Your task to perform on an android device: allow notifications from all sites in the chrome app Image 0: 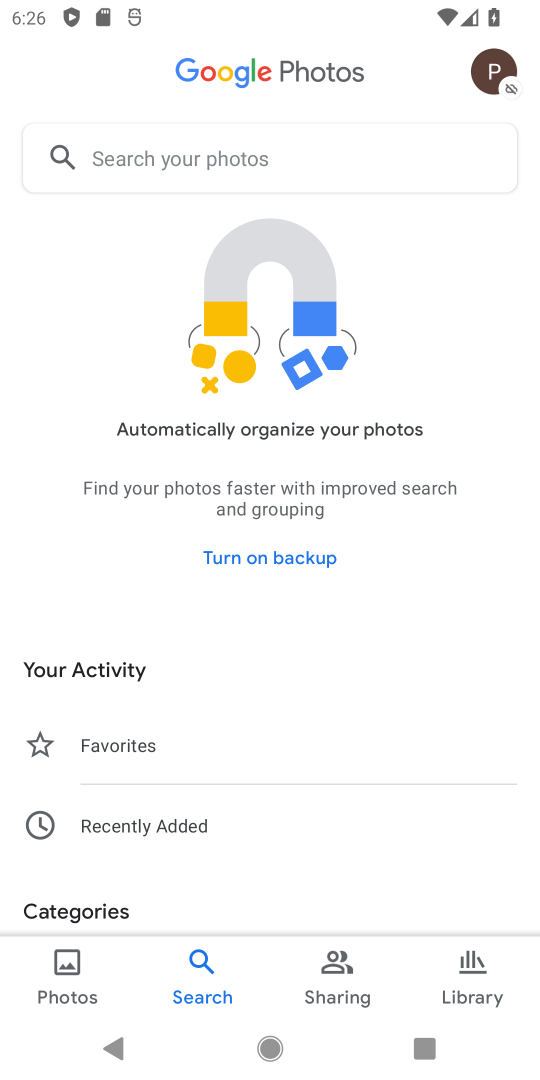
Step 0: press home button
Your task to perform on an android device: allow notifications from all sites in the chrome app Image 1: 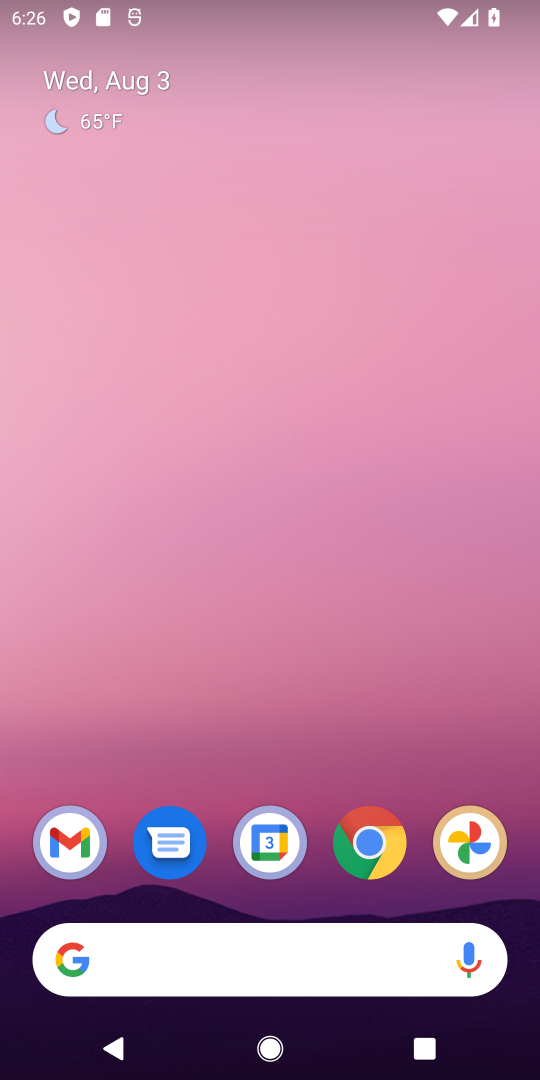
Step 1: click (377, 839)
Your task to perform on an android device: allow notifications from all sites in the chrome app Image 2: 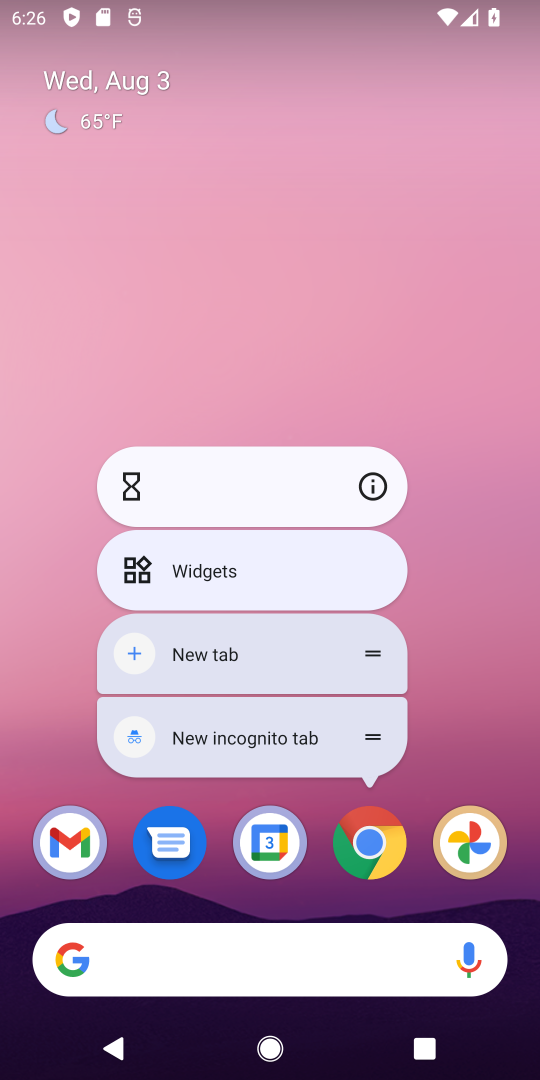
Step 2: click (377, 839)
Your task to perform on an android device: allow notifications from all sites in the chrome app Image 3: 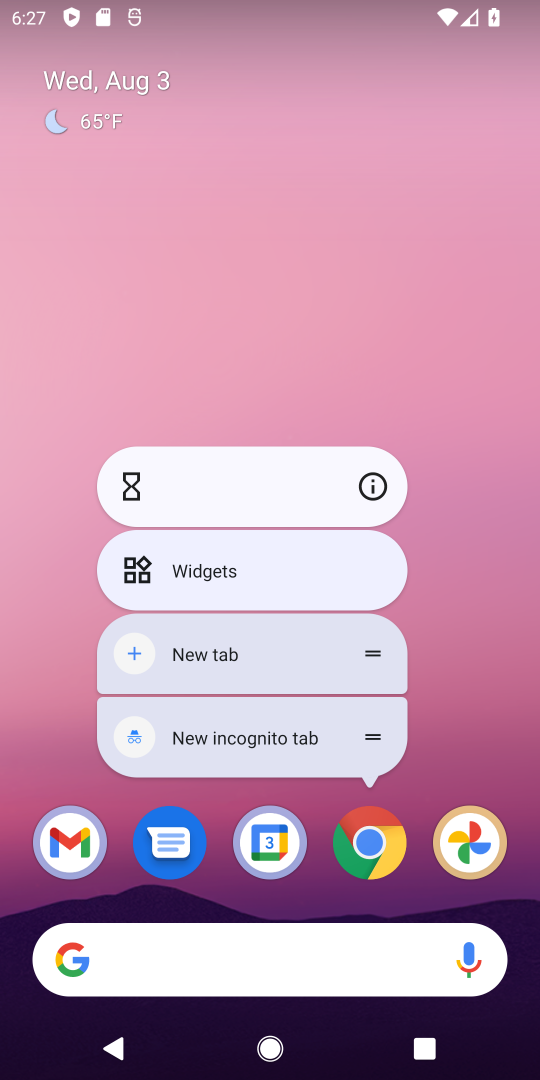
Step 3: click (353, 848)
Your task to perform on an android device: allow notifications from all sites in the chrome app Image 4: 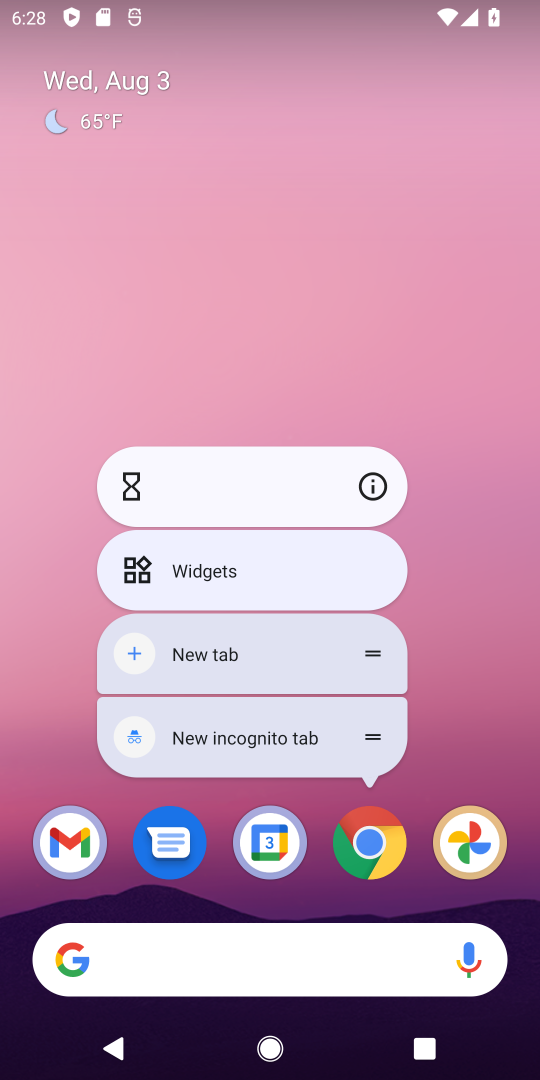
Step 4: click (389, 864)
Your task to perform on an android device: allow notifications from all sites in the chrome app Image 5: 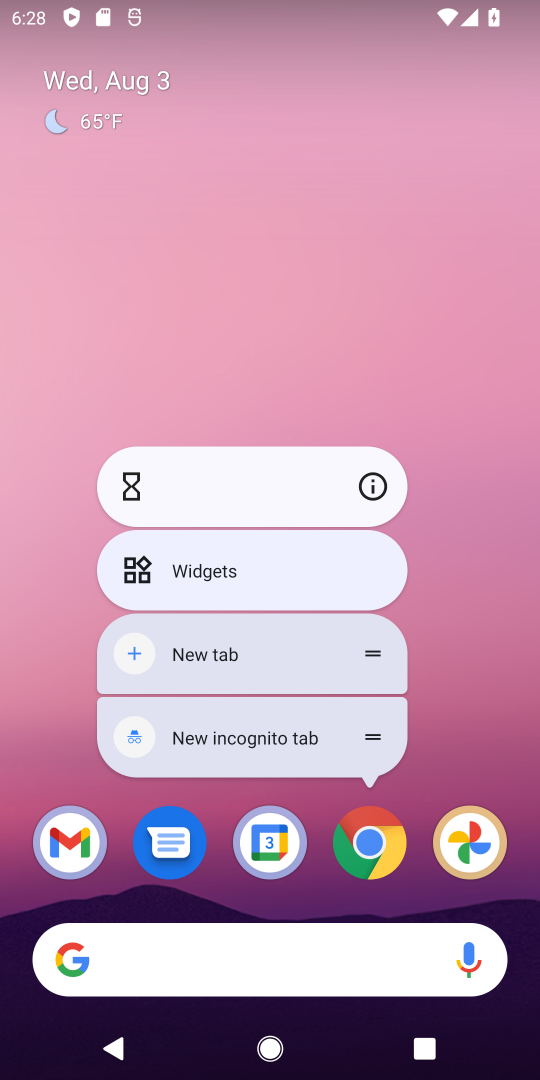
Step 5: click (389, 864)
Your task to perform on an android device: allow notifications from all sites in the chrome app Image 6: 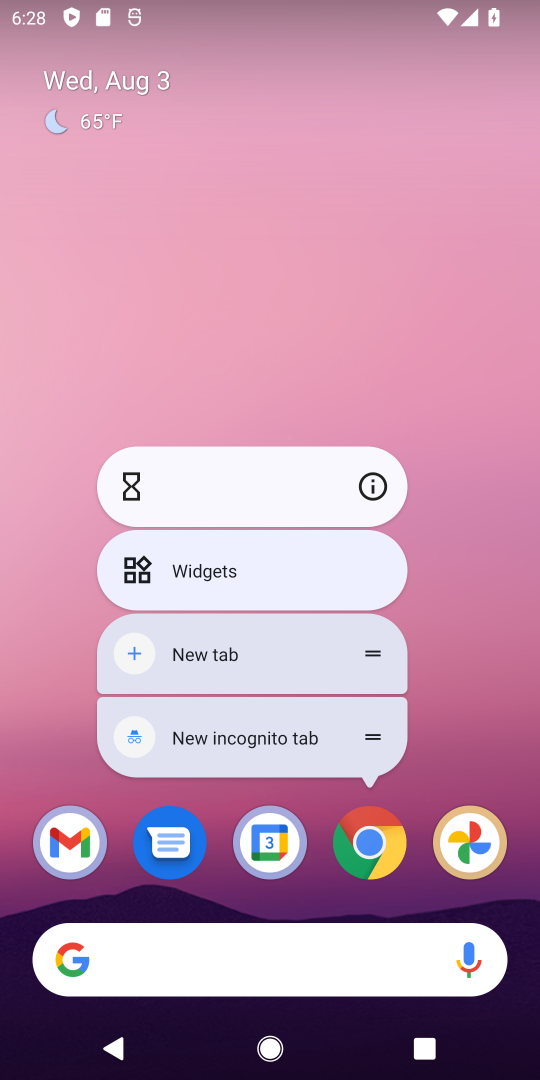
Step 6: click (357, 830)
Your task to perform on an android device: allow notifications from all sites in the chrome app Image 7: 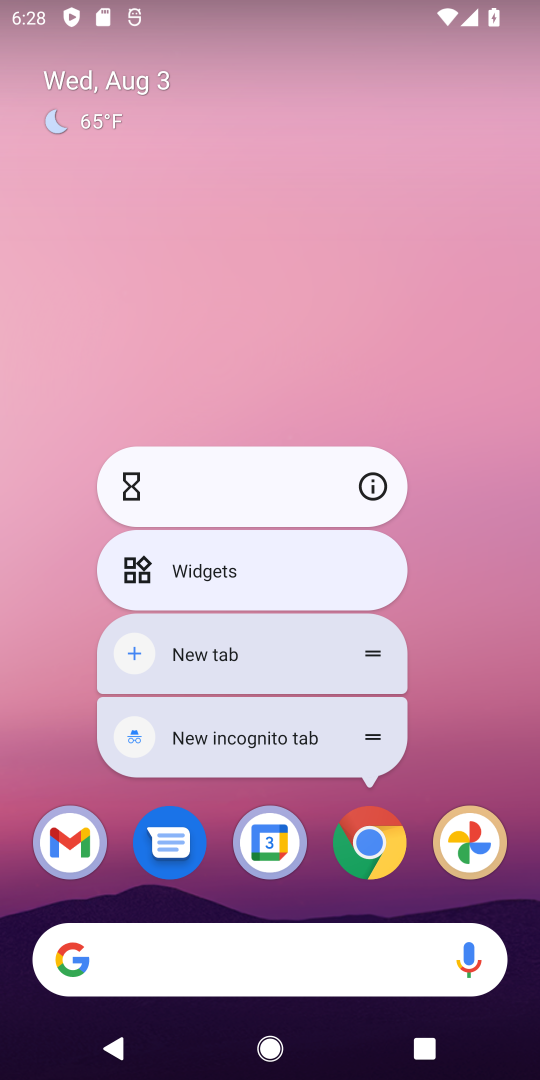
Step 7: click (376, 833)
Your task to perform on an android device: allow notifications from all sites in the chrome app Image 8: 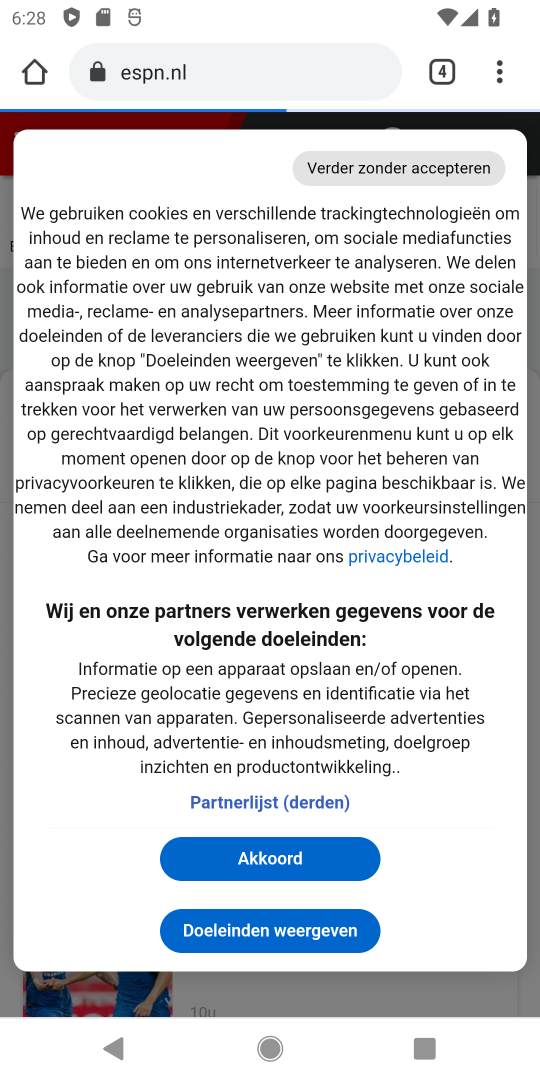
Step 8: click (502, 70)
Your task to perform on an android device: allow notifications from all sites in the chrome app Image 9: 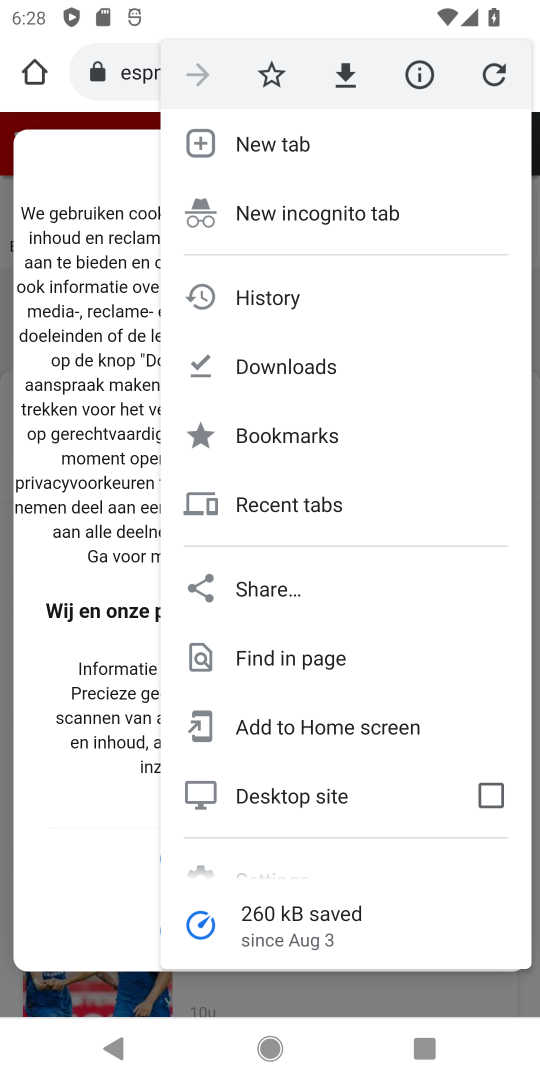
Step 9: drag from (346, 841) to (403, 38)
Your task to perform on an android device: allow notifications from all sites in the chrome app Image 10: 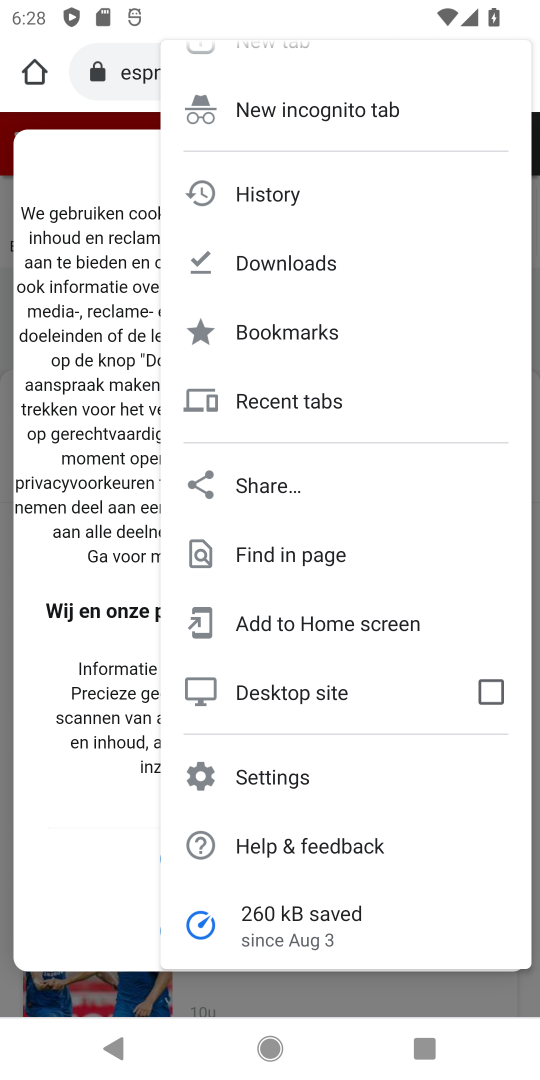
Step 10: click (317, 763)
Your task to perform on an android device: allow notifications from all sites in the chrome app Image 11: 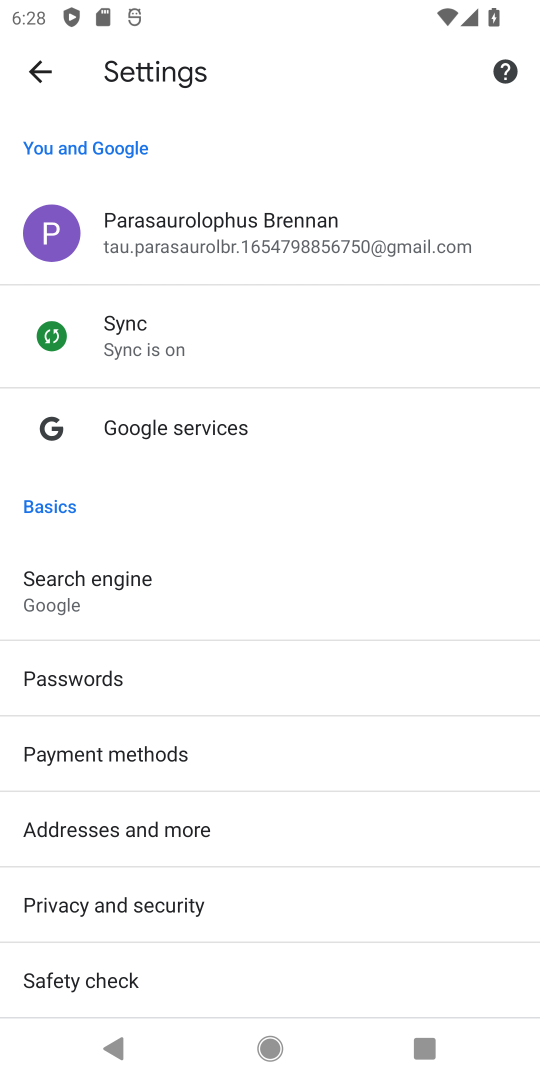
Step 11: drag from (216, 752) to (302, 109)
Your task to perform on an android device: allow notifications from all sites in the chrome app Image 12: 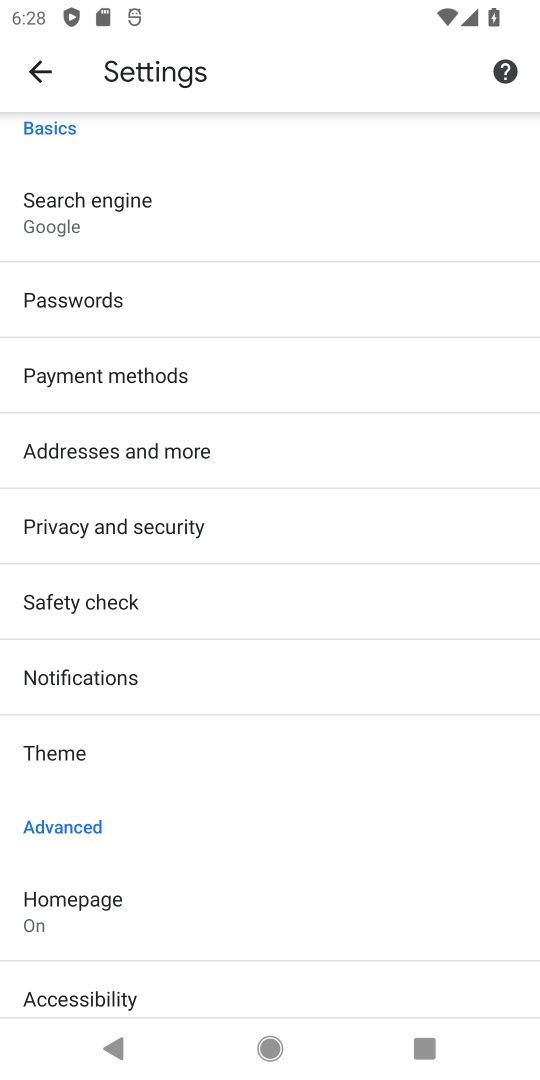
Step 12: click (138, 671)
Your task to perform on an android device: allow notifications from all sites in the chrome app Image 13: 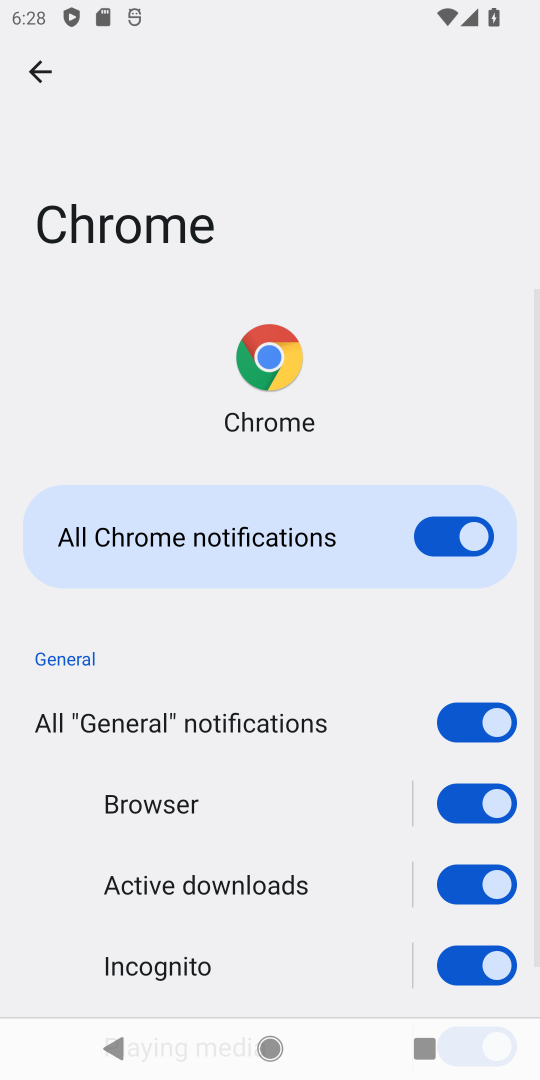
Step 13: task complete